Your task to perform on an android device: Search for Italian restaurants on Maps Image 0: 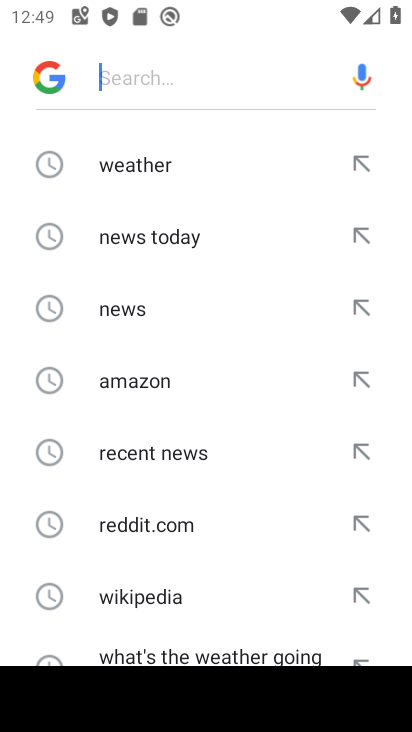
Step 0: press home button
Your task to perform on an android device: Search for Italian restaurants on Maps Image 1: 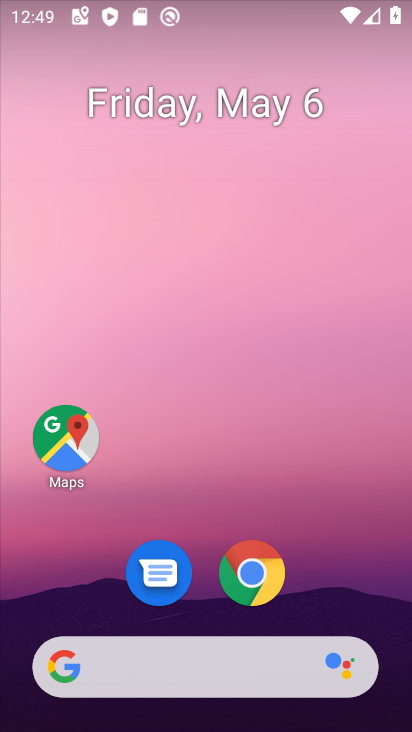
Step 1: click (72, 440)
Your task to perform on an android device: Search for Italian restaurants on Maps Image 2: 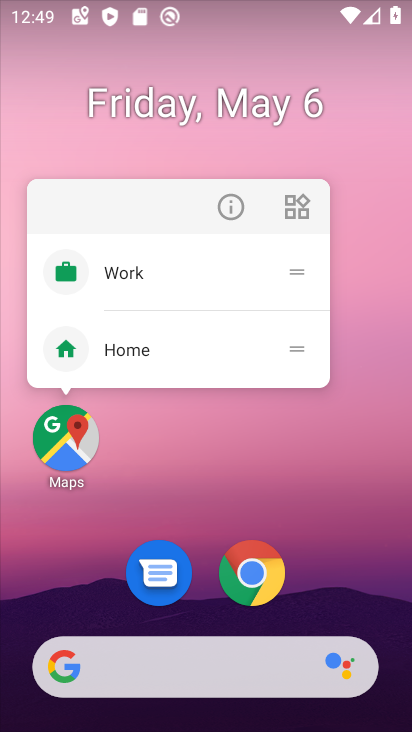
Step 2: click (115, 393)
Your task to perform on an android device: Search for Italian restaurants on Maps Image 3: 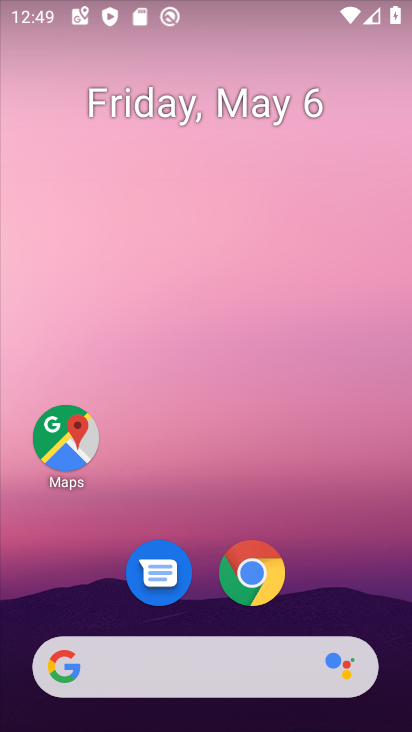
Step 3: click (78, 446)
Your task to perform on an android device: Search for Italian restaurants on Maps Image 4: 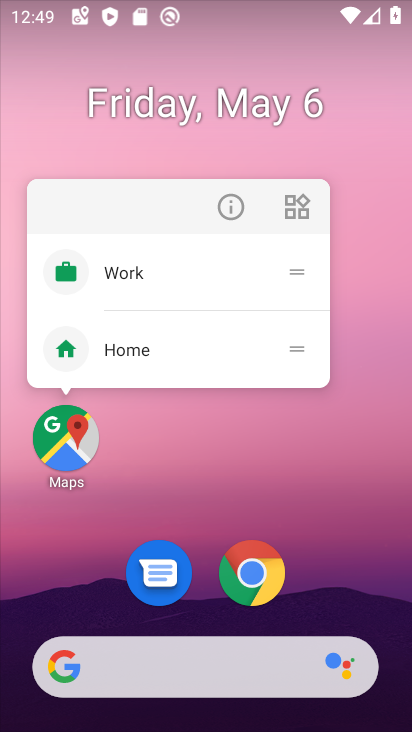
Step 4: click (73, 449)
Your task to perform on an android device: Search for Italian restaurants on Maps Image 5: 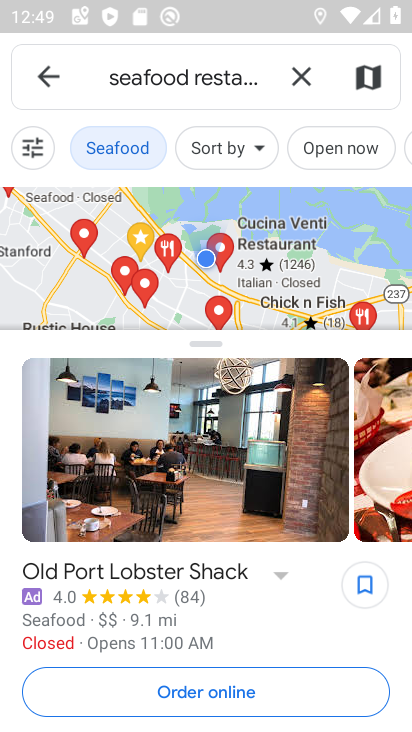
Step 5: click (301, 75)
Your task to perform on an android device: Search for Italian restaurants on Maps Image 6: 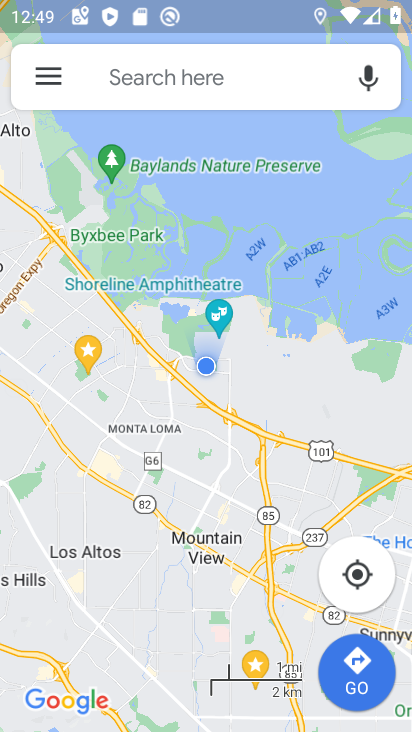
Step 6: click (271, 79)
Your task to perform on an android device: Search for Italian restaurants on Maps Image 7: 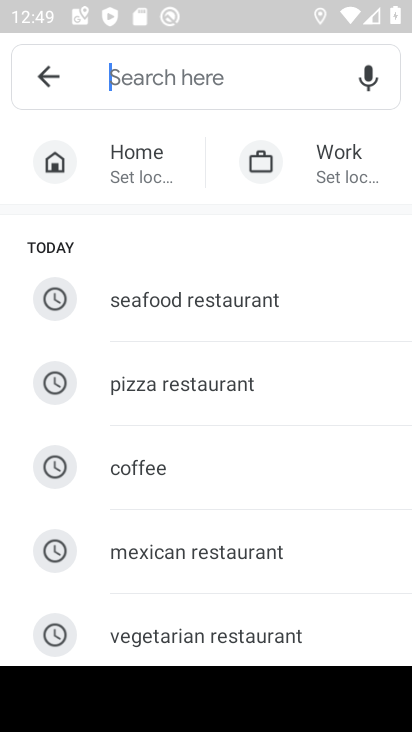
Step 7: drag from (264, 595) to (278, 235)
Your task to perform on an android device: Search for Italian restaurants on Maps Image 8: 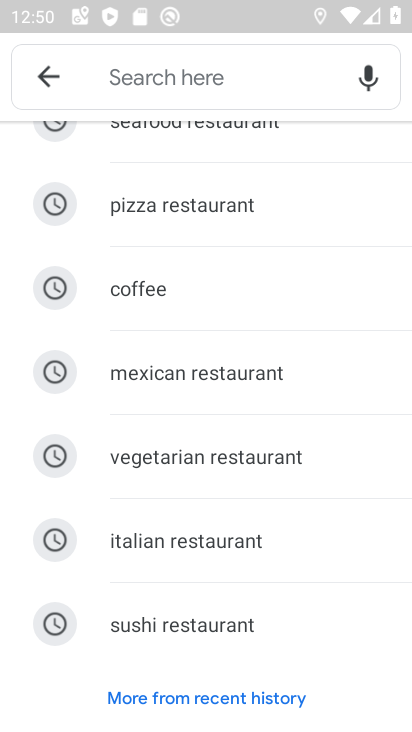
Step 8: click (200, 544)
Your task to perform on an android device: Search for Italian restaurants on Maps Image 9: 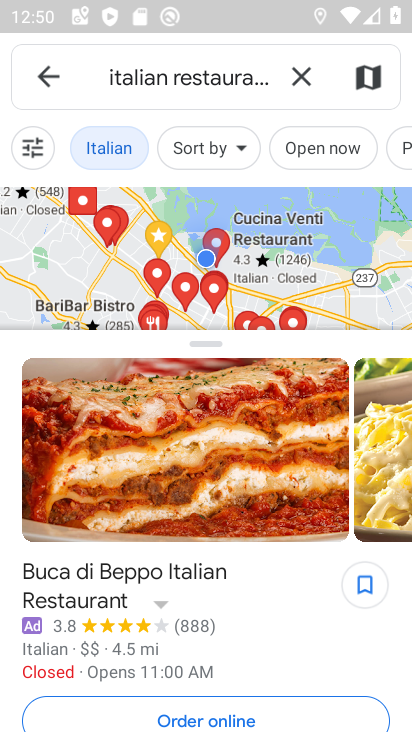
Step 9: task complete